Your task to perform on an android device: all mails in gmail Image 0: 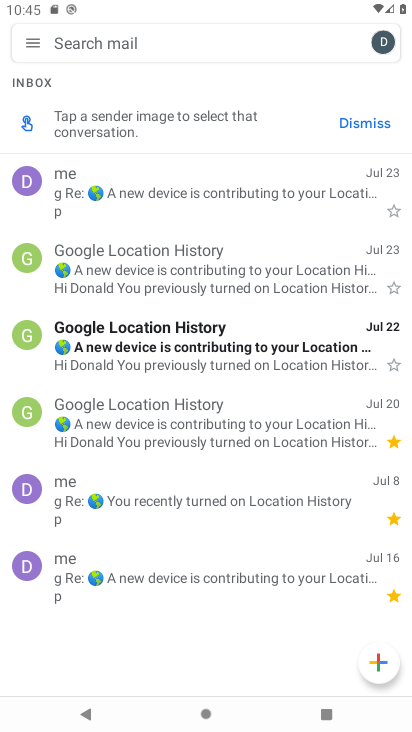
Step 0: drag from (265, 723) to (202, 174)
Your task to perform on an android device: all mails in gmail Image 1: 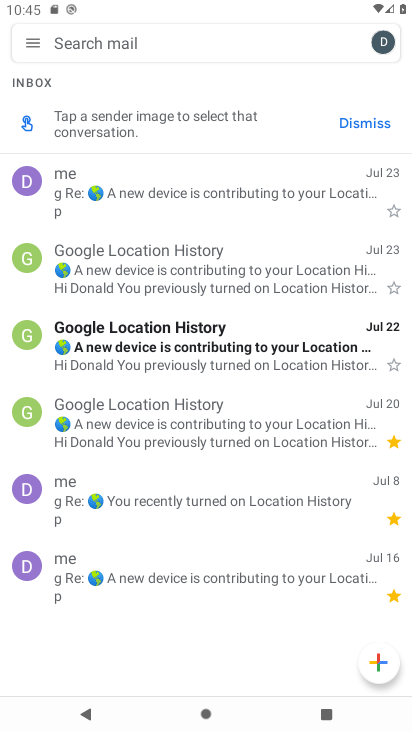
Step 1: task complete